Your task to perform on an android device: Open Google Chrome and click the shortcut for Amazon.com Image 0: 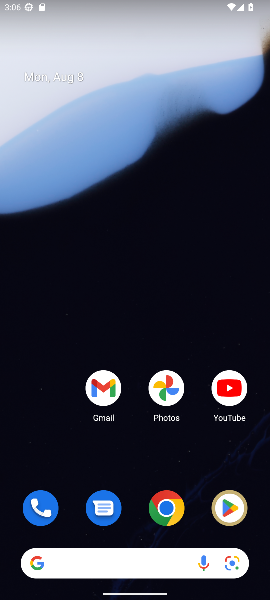
Step 0: click (167, 509)
Your task to perform on an android device: Open Google Chrome and click the shortcut for Amazon.com Image 1: 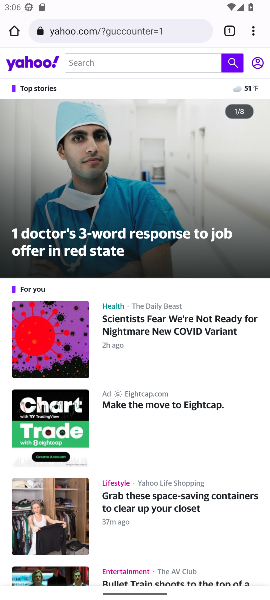
Step 1: click (254, 30)
Your task to perform on an android device: Open Google Chrome and click the shortcut for Amazon.com Image 2: 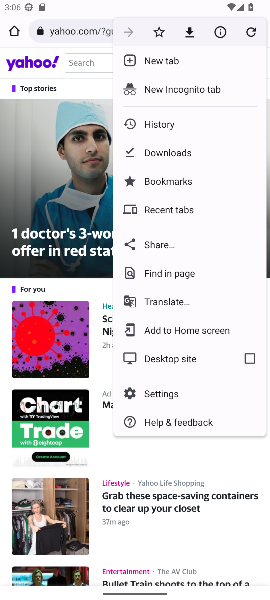
Step 2: click (157, 58)
Your task to perform on an android device: Open Google Chrome and click the shortcut for Amazon.com Image 3: 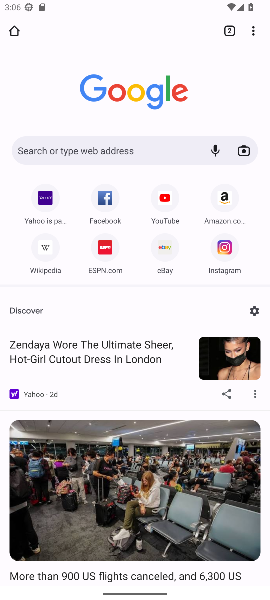
Step 3: click (225, 197)
Your task to perform on an android device: Open Google Chrome and click the shortcut for Amazon.com Image 4: 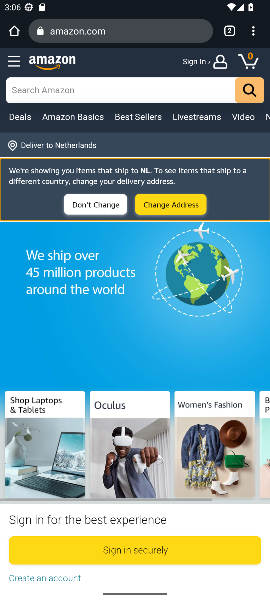
Step 4: task complete